Your task to perform on an android device: Go to wifi settings Image 0: 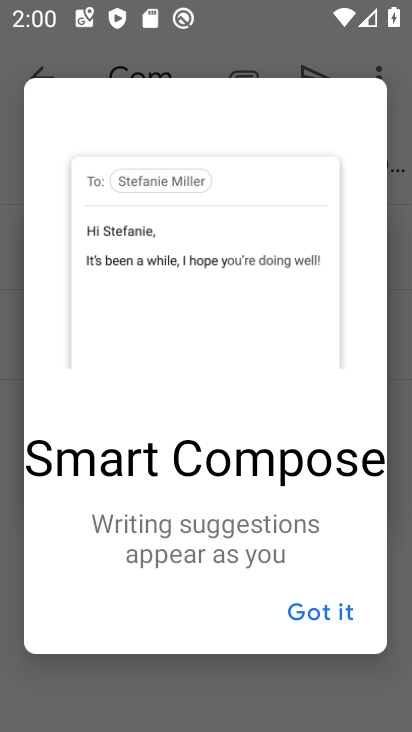
Step 0: press home button
Your task to perform on an android device: Go to wifi settings Image 1: 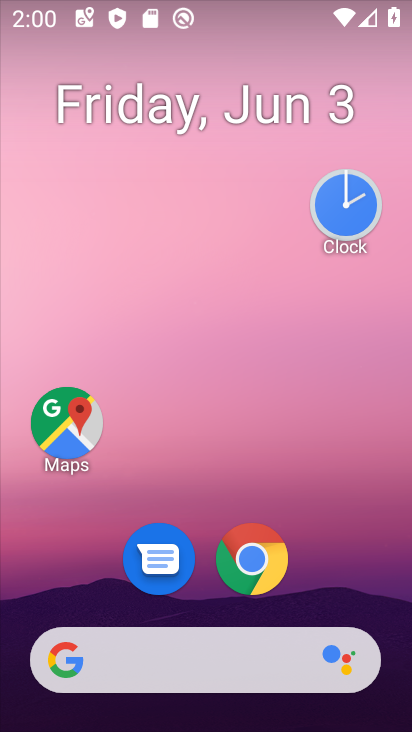
Step 1: drag from (86, 18) to (71, 275)
Your task to perform on an android device: Go to wifi settings Image 2: 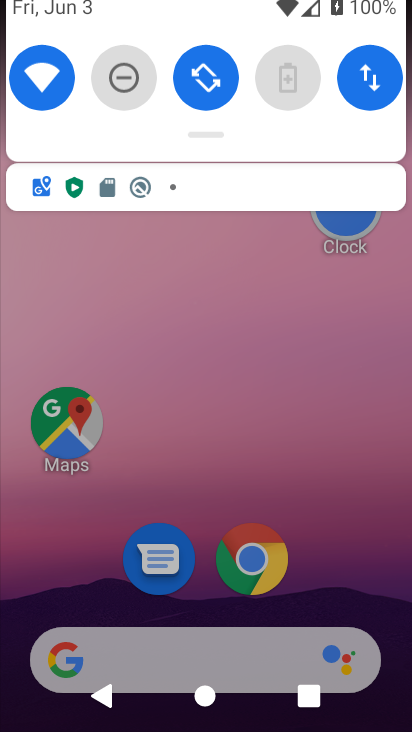
Step 2: click (71, 275)
Your task to perform on an android device: Go to wifi settings Image 3: 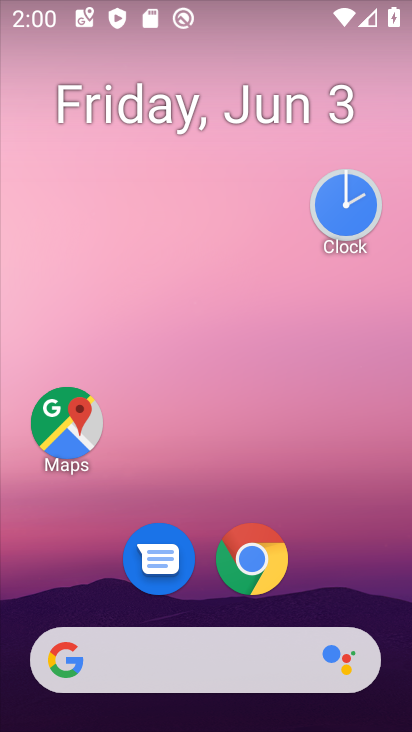
Step 3: drag from (204, 11) to (117, 479)
Your task to perform on an android device: Go to wifi settings Image 4: 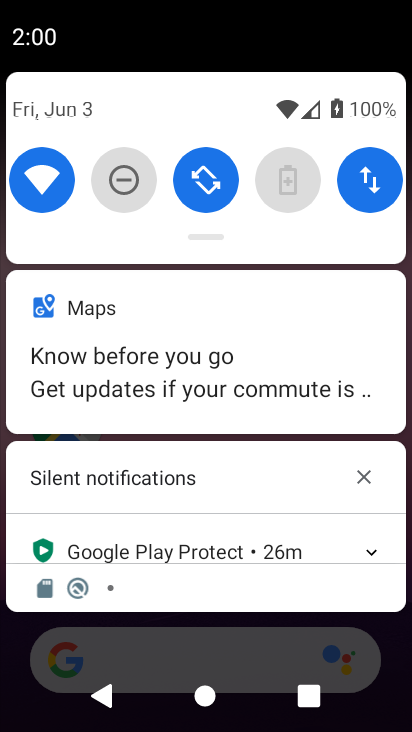
Step 4: click (51, 201)
Your task to perform on an android device: Go to wifi settings Image 5: 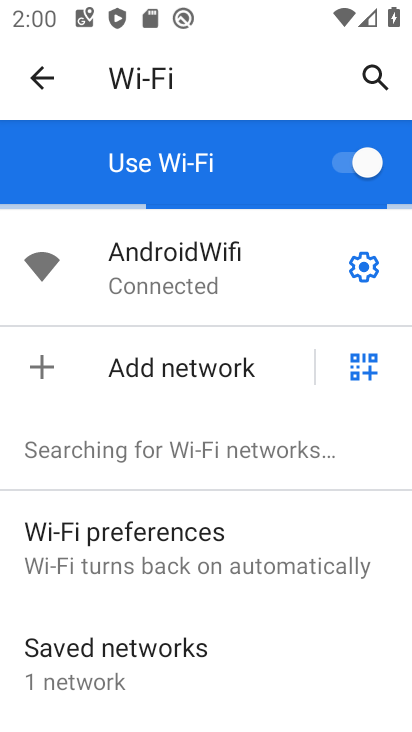
Step 5: task complete